Your task to perform on an android device: What is the recent news? Image 0: 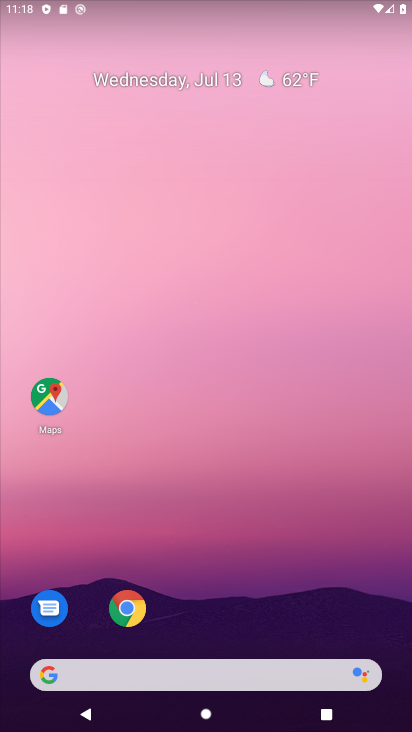
Step 0: drag from (16, 216) to (403, 571)
Your task to perform on an android device: What is the recent news? Image 1: 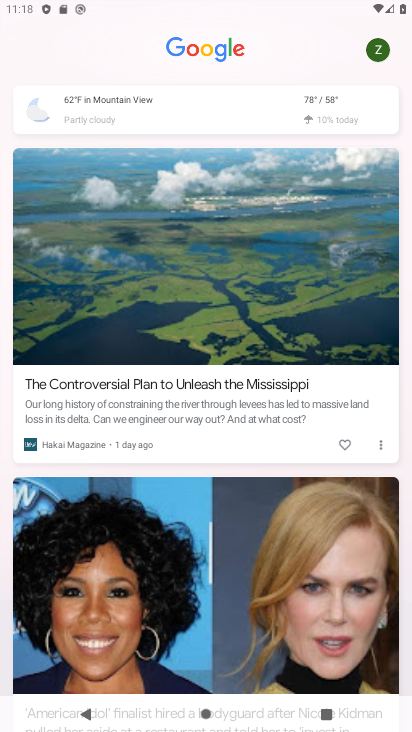
Step 1: task complete